Your task to perform on an android device: uninstall "Viber Messenger" Image 0: 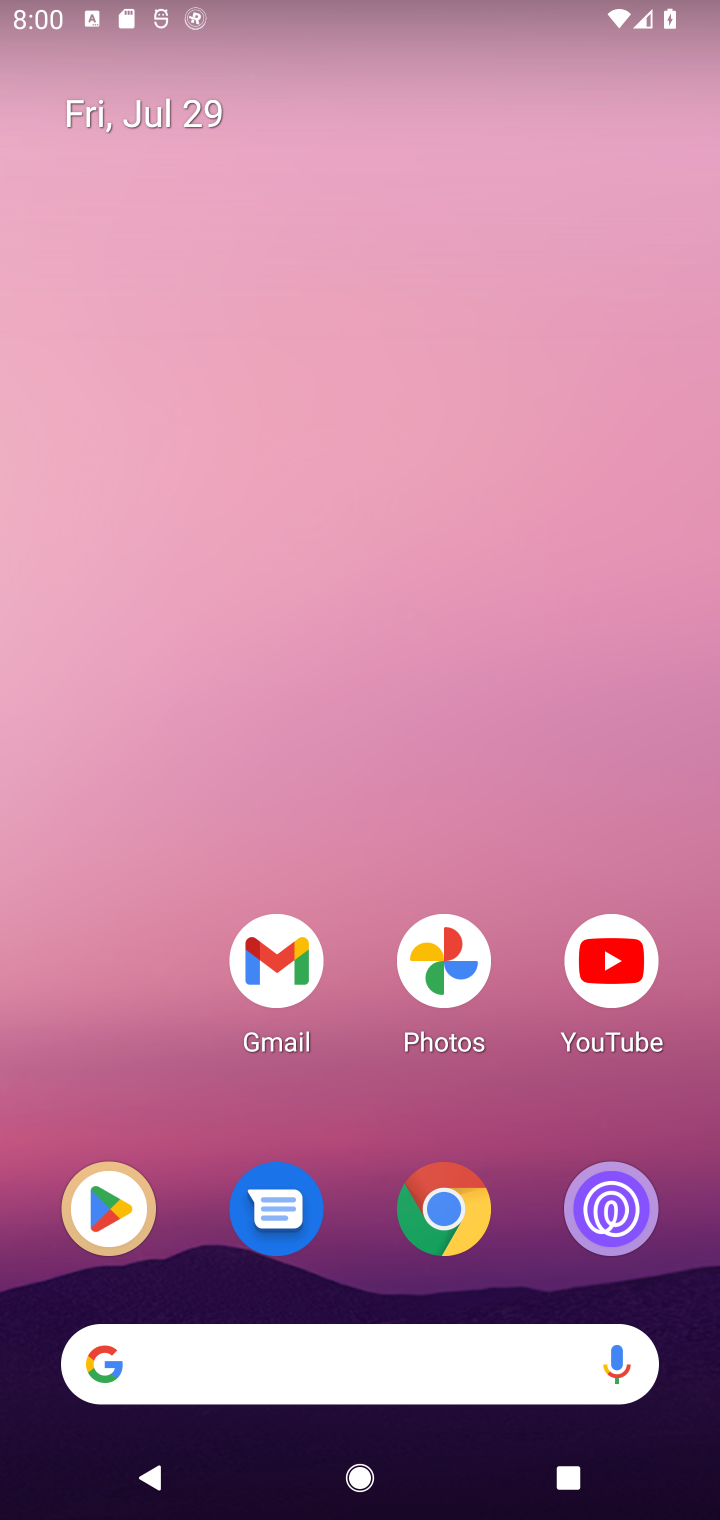
Step 0: click (114, 1207)
Your task to perform on an android device: uninstall "Viber Messenger" Image 1: 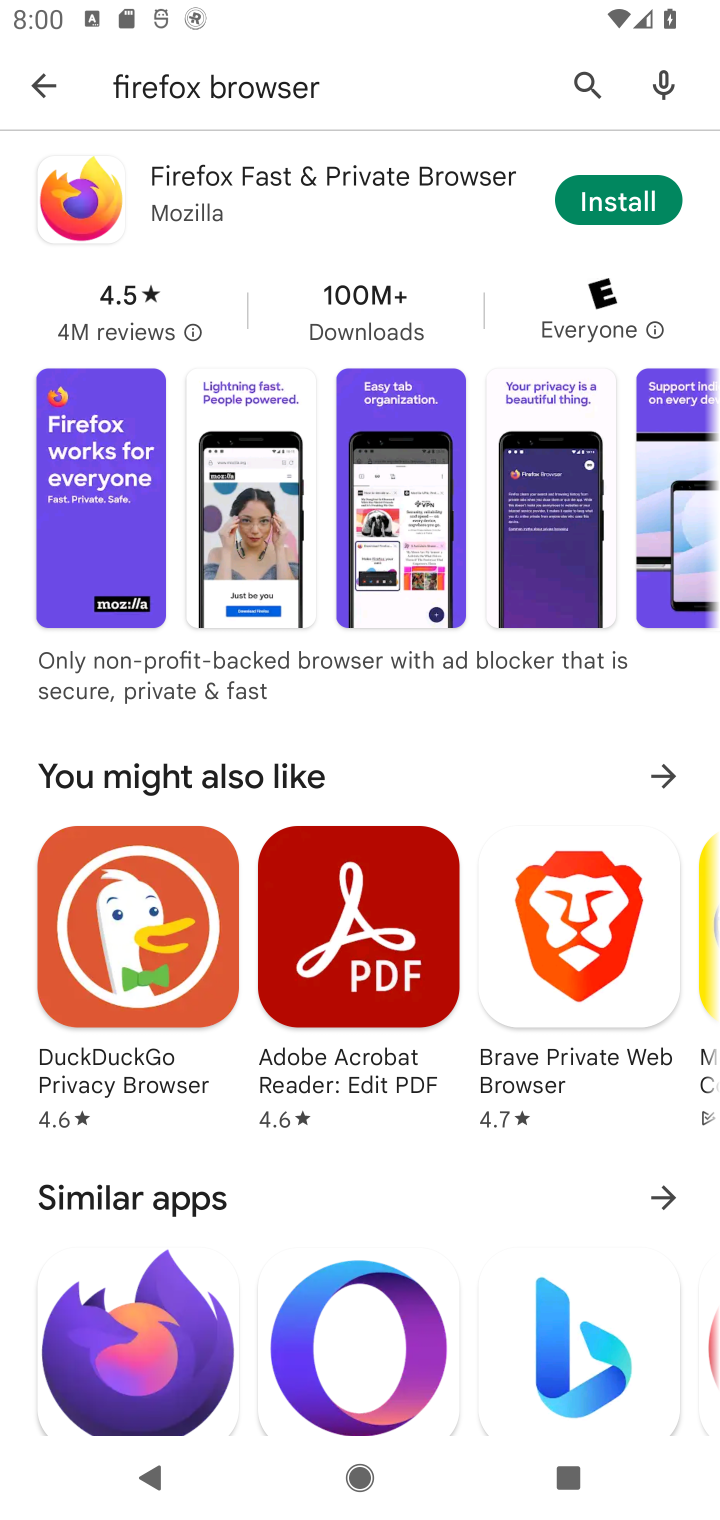
Step 1: click (594, 94)
Your task to perform on an android device: uninstall "Viber Messenger" Image 2: 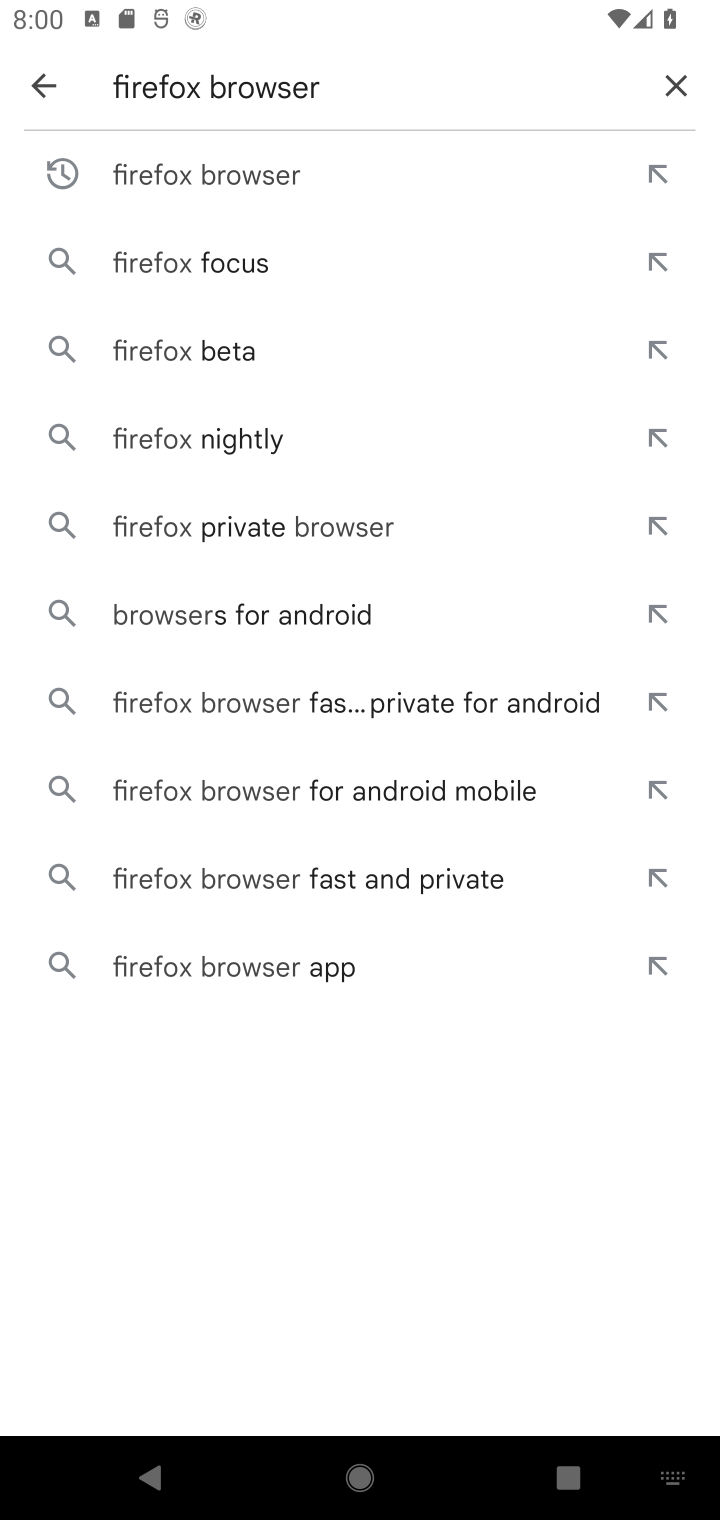
Step 2: click (657, 85)
Your task to perform on an android device: uninstall "Viber Messenger" Image 3: 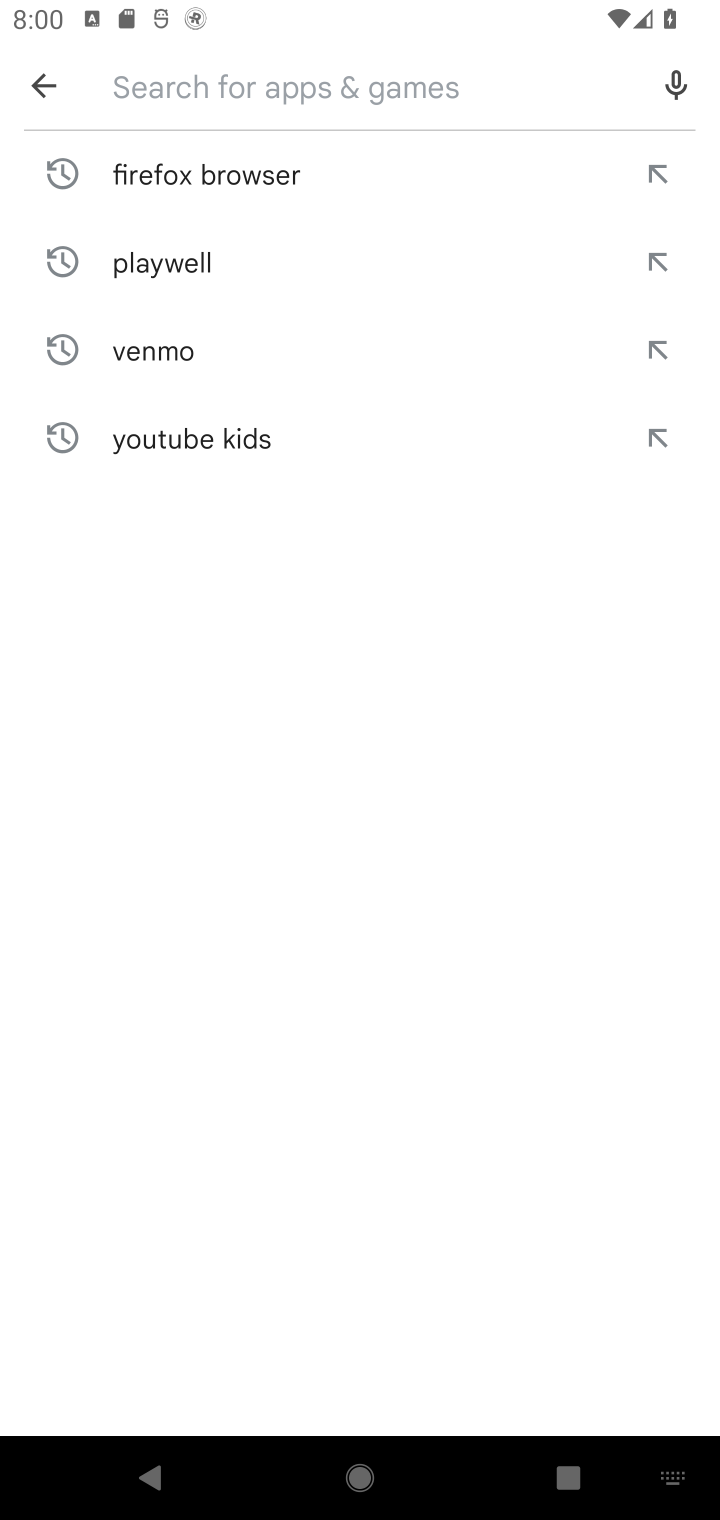
Step 3: type "Viber Messenger"
Your task to perform on an android device: uninstall "Viber Messenger" Image 4: 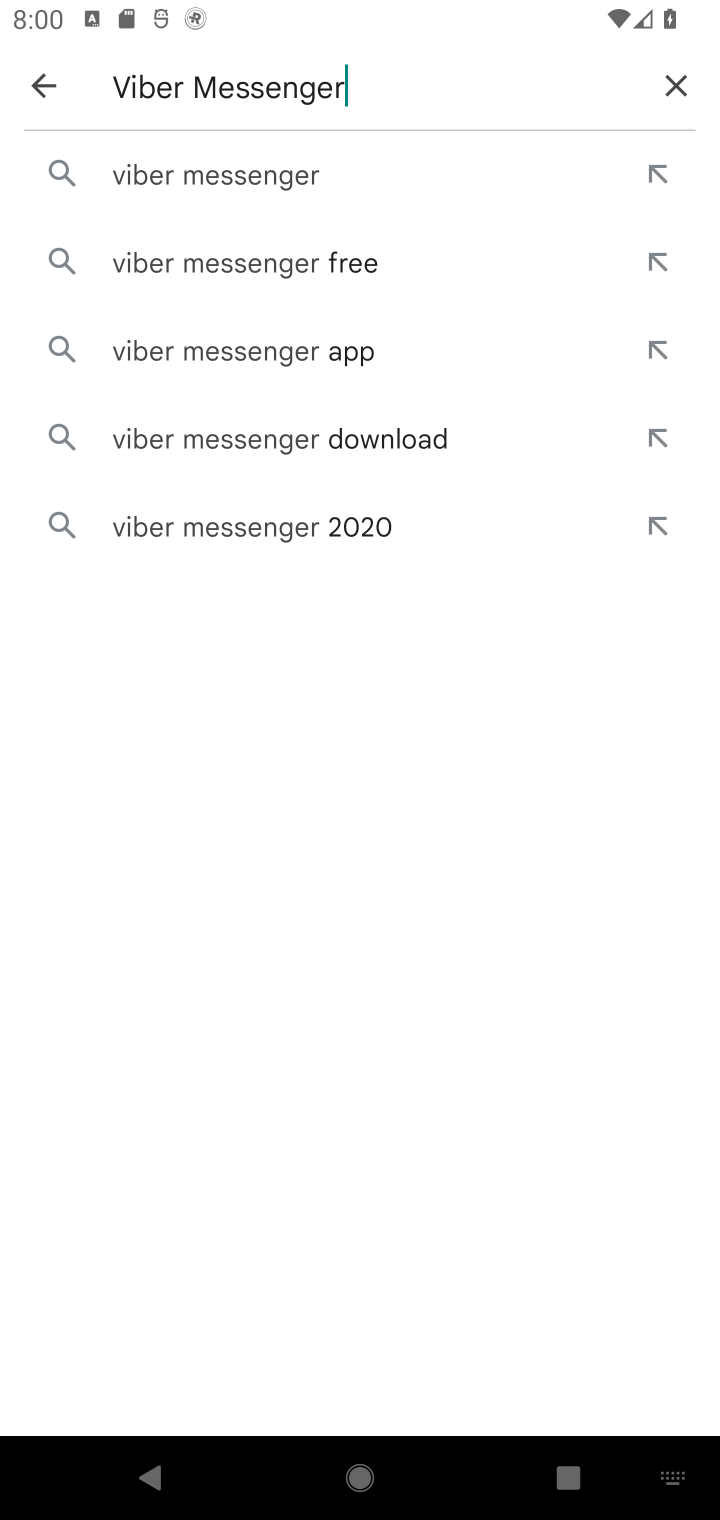
Step 4: click (217, 193)
Your task to perform on an android device: uninstall "Viber Messenger" Image 5: 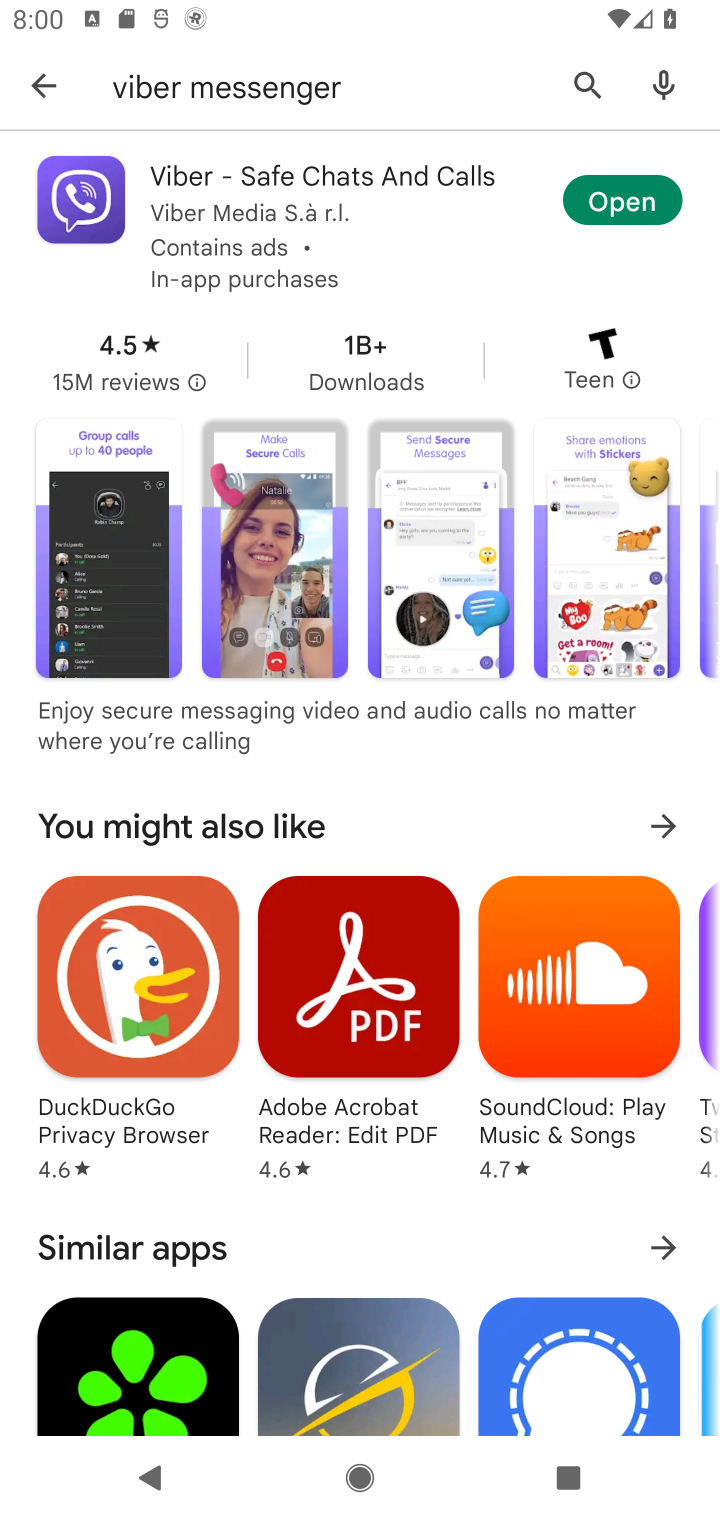
Step 5: click (114, 187)
Your task to perform on an android device: uninstall "Viber Messenger" Image 6: 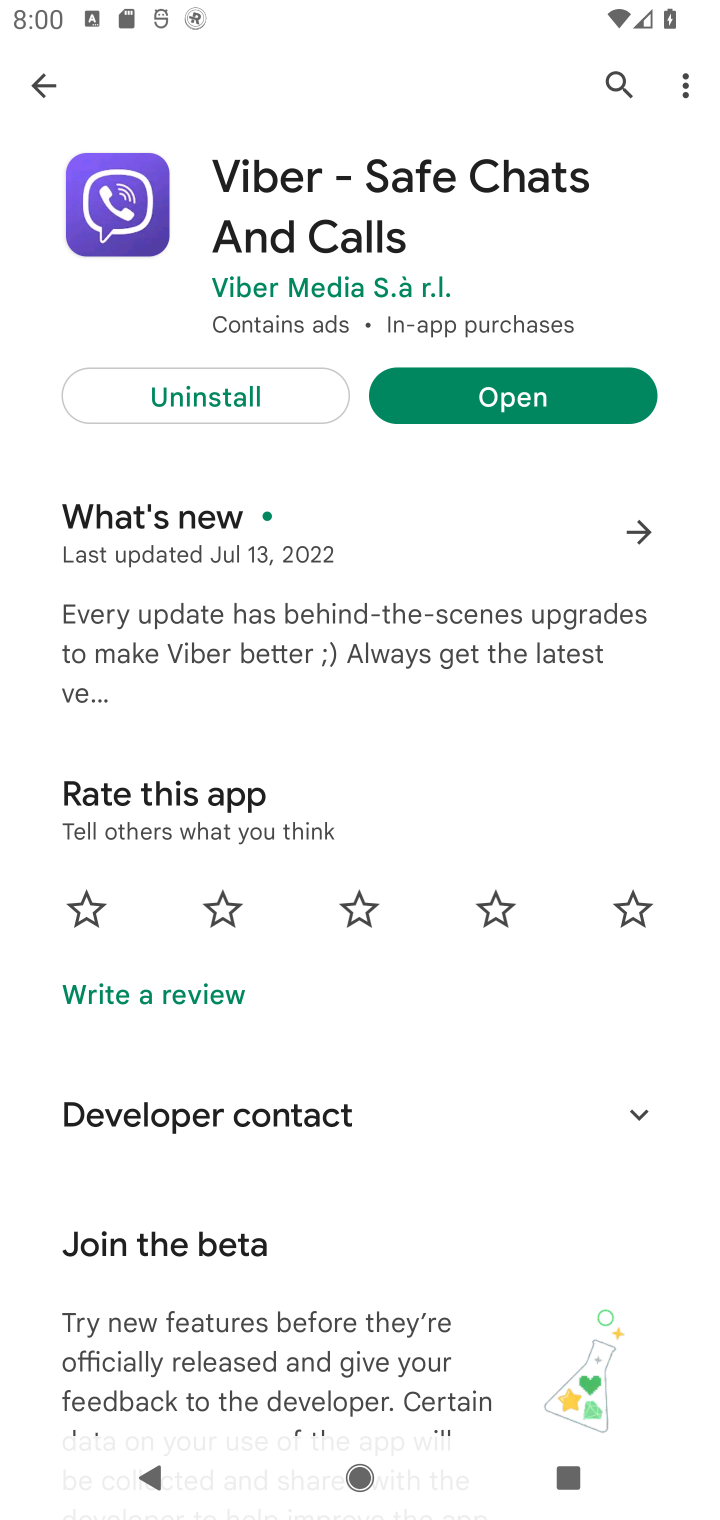
Step 6: click (164, 390)
Your task to perform on an android device: uninstall "Viber Messenger" Image 7: 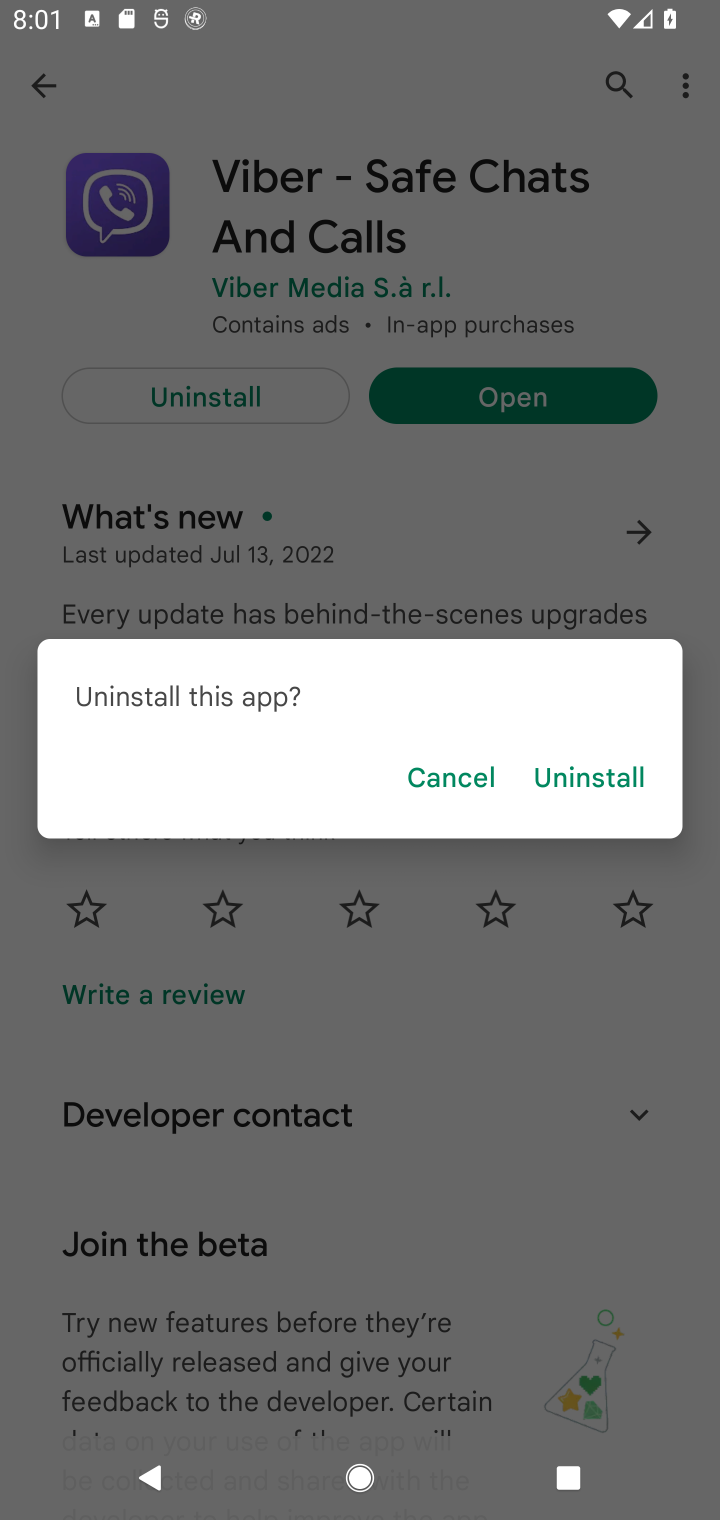
Step 7: click (588, 787)
Your task to perform on an android device: uninstall "Viber Messenger" Image 8: 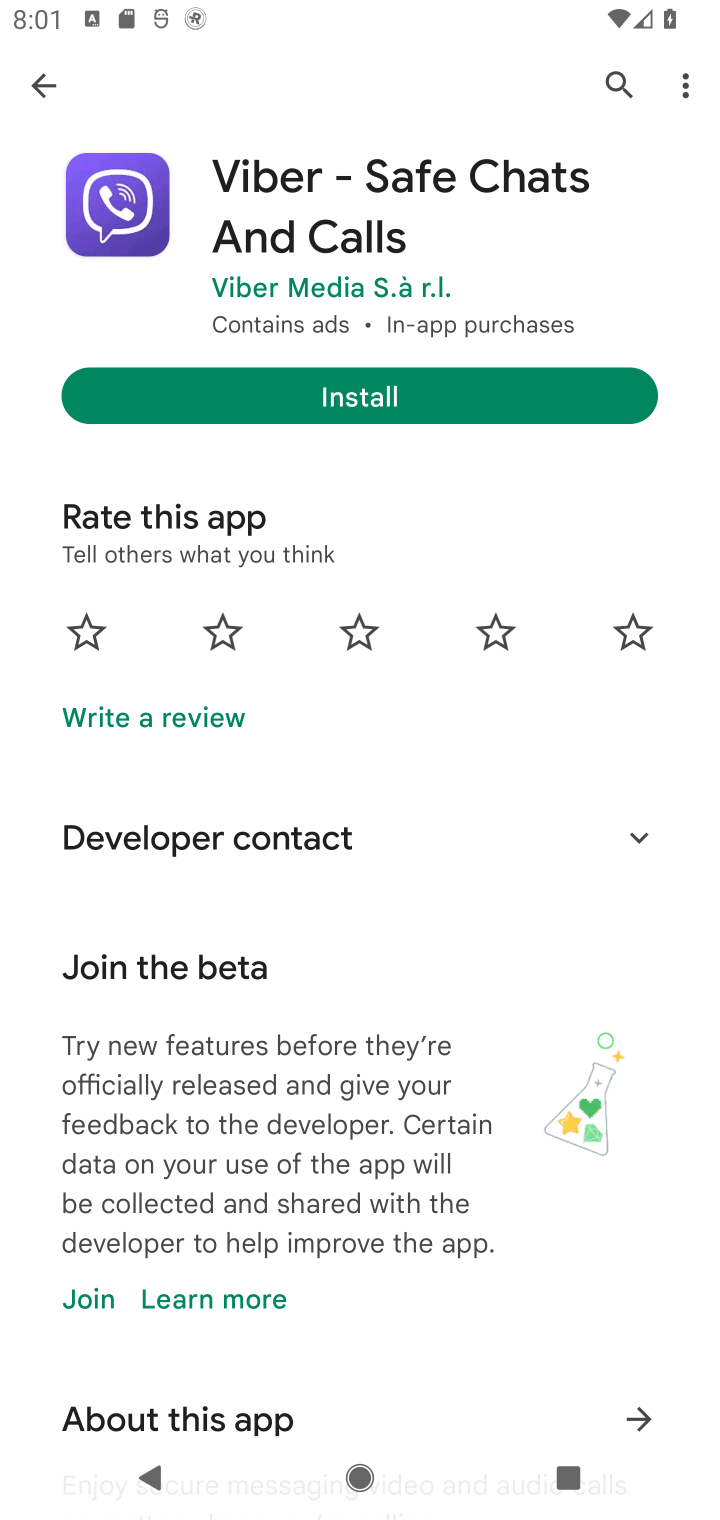
Step 8: task complete